Your task to perform on an android device: show emergency info Image 0: 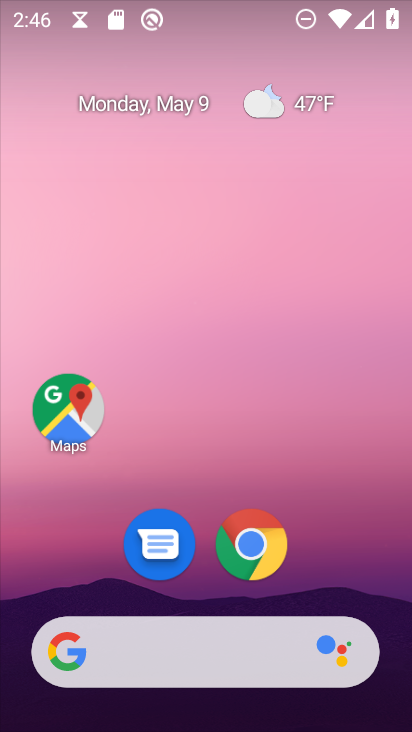
Step 0: drag from (358, 526) to (348, 160)
Your task to perform on an android device: show emergency info Image 1: 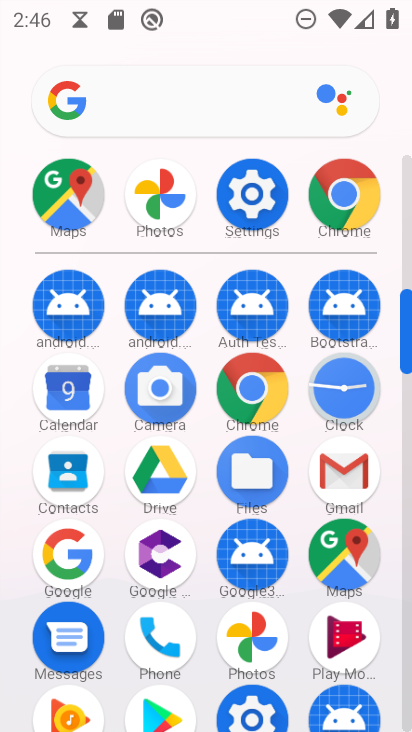
Step 1: click (242, 185)
Your task to perform on an android device: show emergency info Image 2: 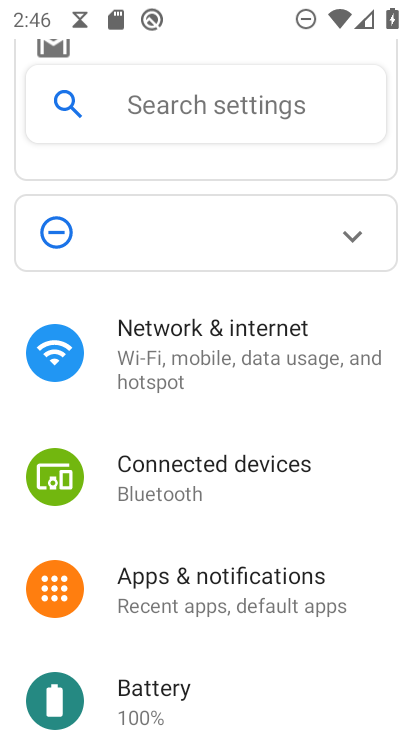
Step 2: drag from (295, 576) to (258, 300)
Your task to perform on an android device: show emergency info Image 3: 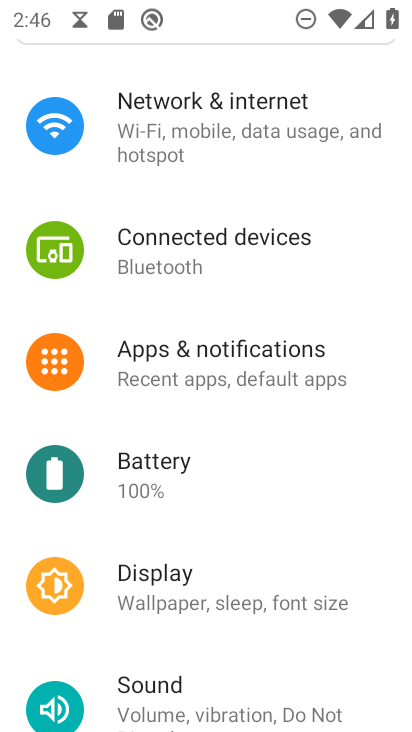
Step 3: drag from (219, 602) to (195, 213)
Your task to perform on an android device: show emergency info Image 4: 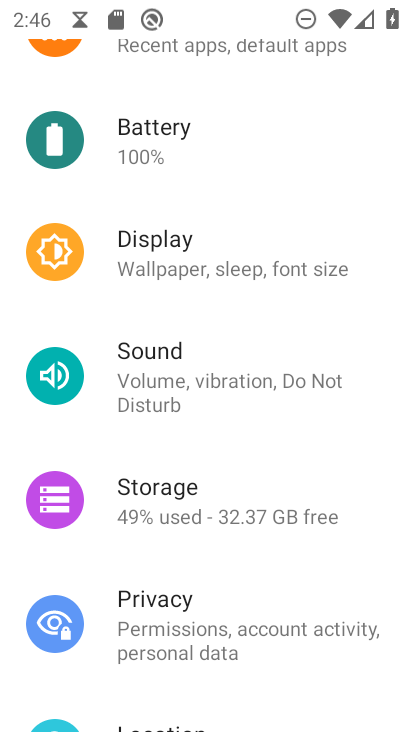
Step 4: drag from (256, 578) to (219, 170)
Your task to perform on an android device: show emergency info Image 5: 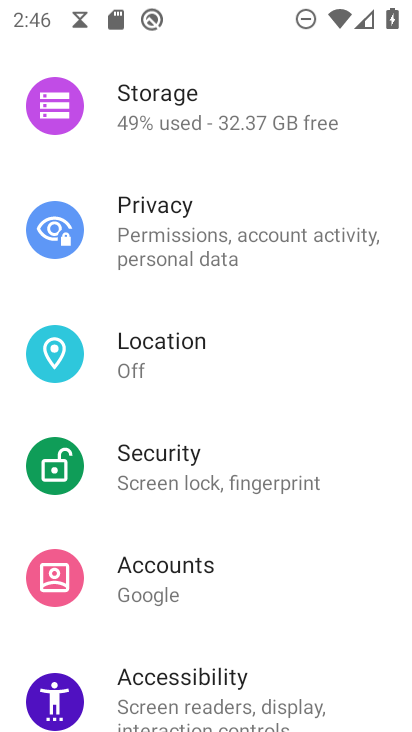
Step 5: drag from (254, 569) to (261, 64)
Your task to perform on an android device: show emergency info Image 6: 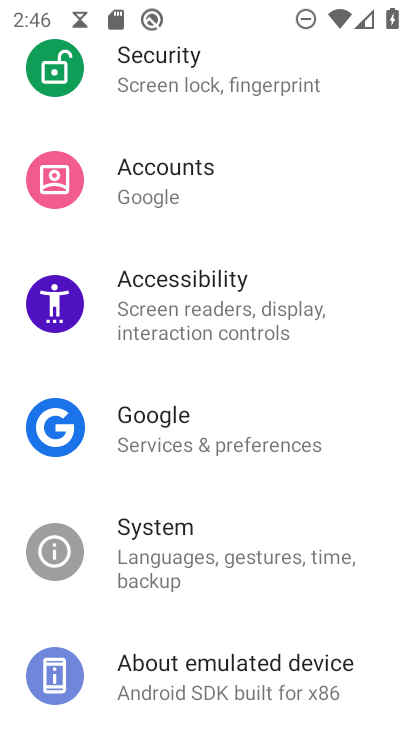
Step 6: drag from (240, 571) to (213, 243)
Your task to perform on an android device: show emergency info Image 7: 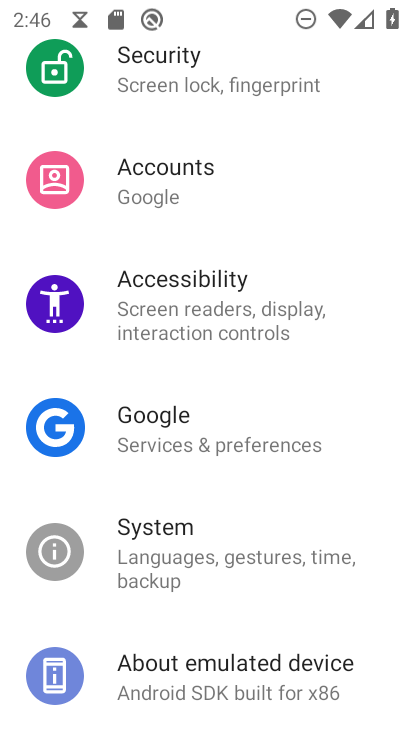
Step 7: click (134, 579)
Your task to perform on an android device: show emergency info Image 8: 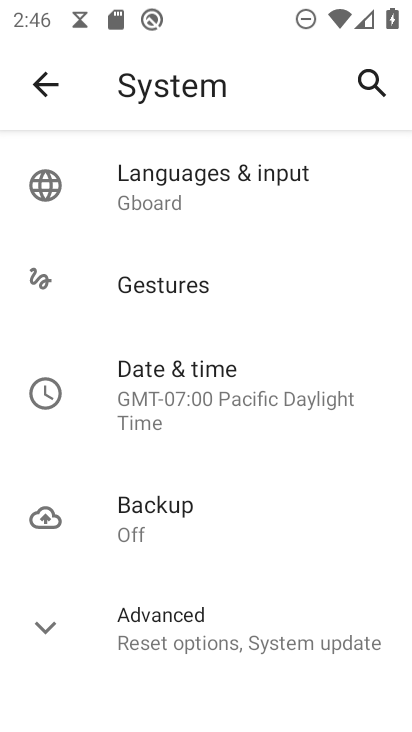
Step 8: drag from (220, 520) to (246, 224)
Your task to perform on an android device: show emergency info Image 9: 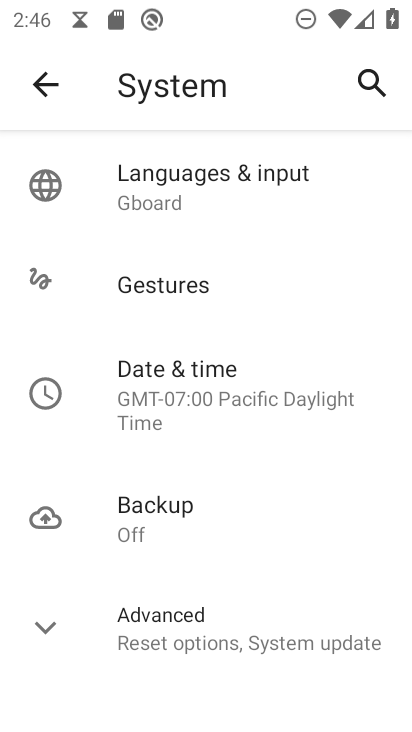
Step 9: drag from (241, 231) to (266, 554)
Your task to perform on an android device: show emergency info Image 10: 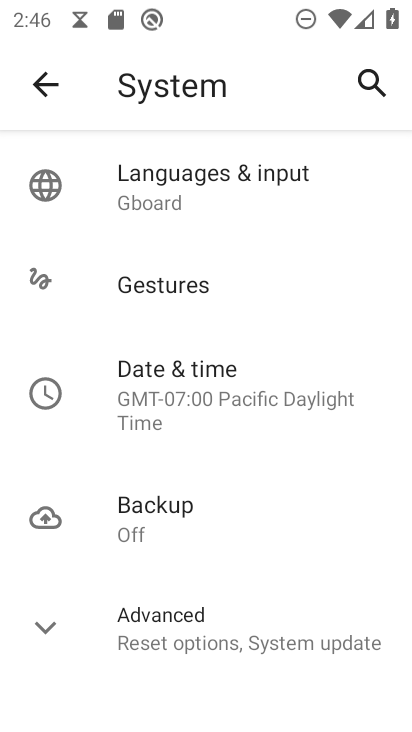
Step 10: click (160, 629)
Your task to perform on an android device: show emergency info Image 11: 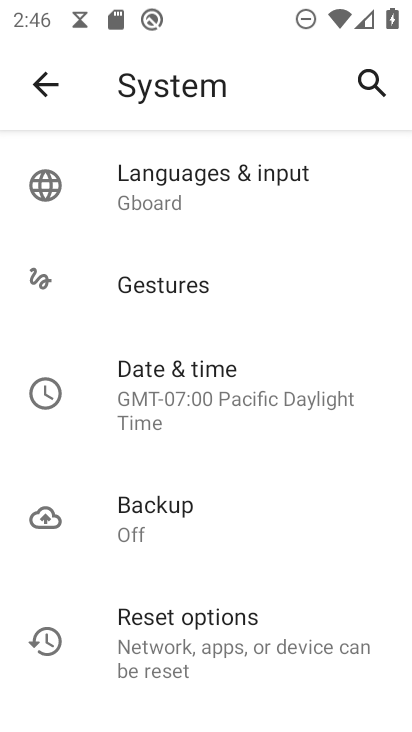
Step 11: drag from (217, 587) to (250, 204)
Your task to perform on an android device: show emergency info Image 12: 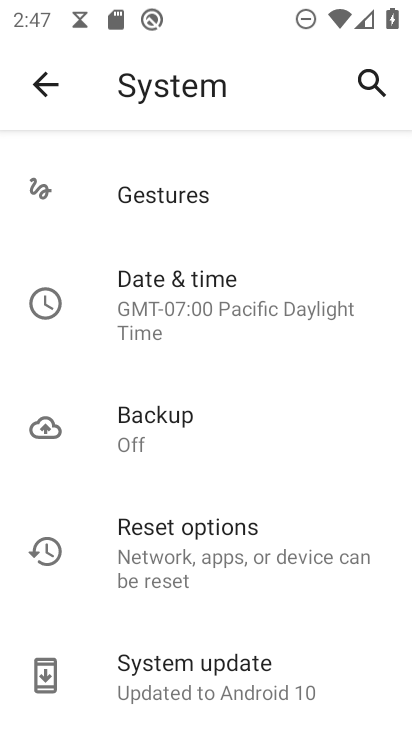
Step 12: drag from (215, 594) to (177, 188)
Your task to perform on an android device: show emergency info Image 13: 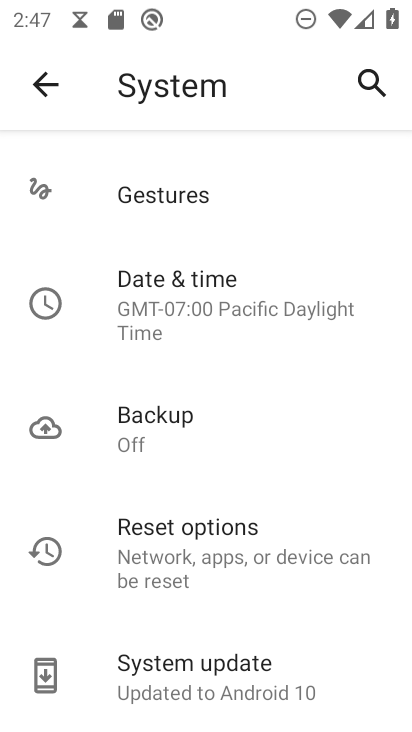
Step 13: click (49, 101)
Your task to perform on an android device: show emergency info Image 14: 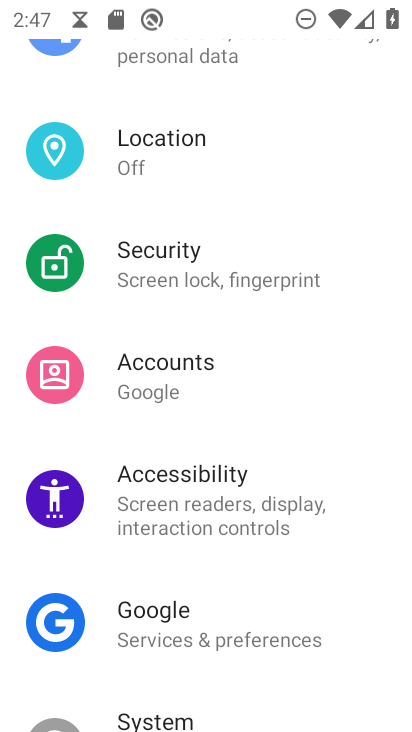
Step 14: drag from (167, 615) to (288, 141)
Your task to perform on an android device: show emergency info Image 15: 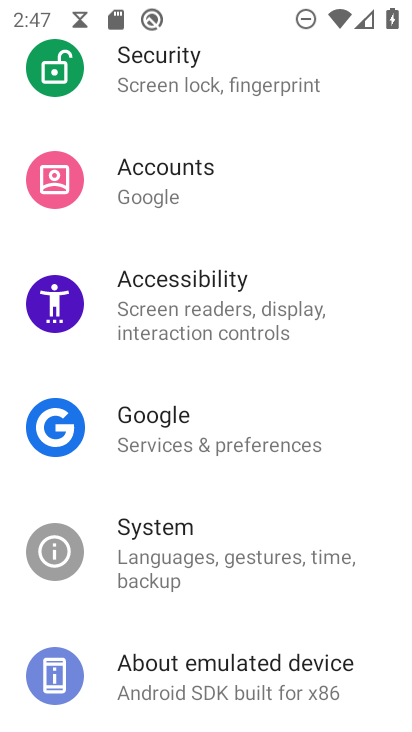
Step 15: click (165, 673)
Your task to perform on an android device: show emergency info Image 16: 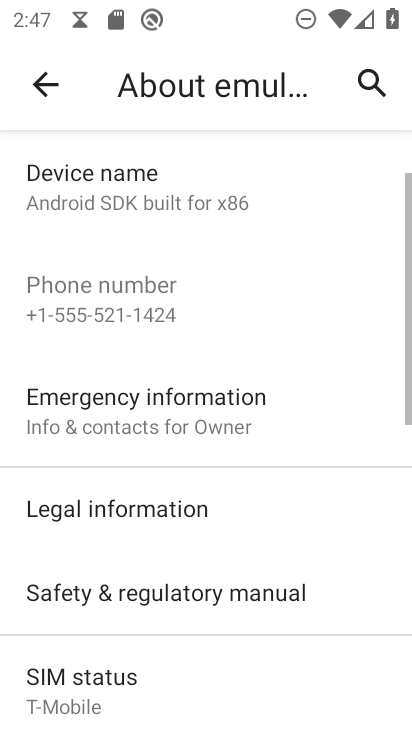
Step 16: click (139, 435)
Your task to perform on an android device: show emergency info Image 17: 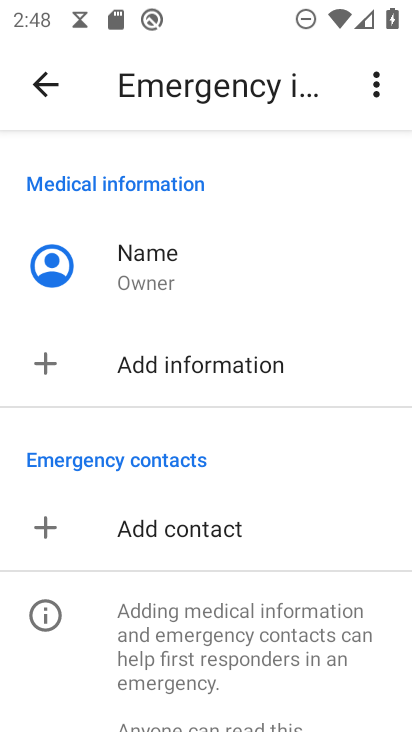
Step 17: task complete